Your task to perform on an android device: find snoozed emails in the gmail app Image 0: 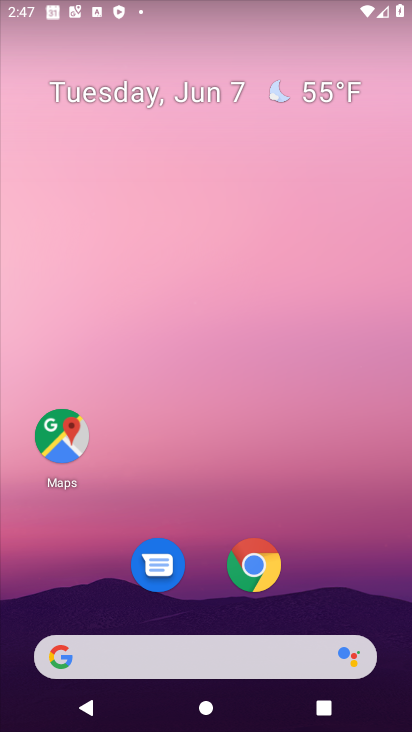
Step 0: drag from (296, 674) to (327, 77)
Your task to perform on an android device: find snoozed emails in the gmail app Image 1: 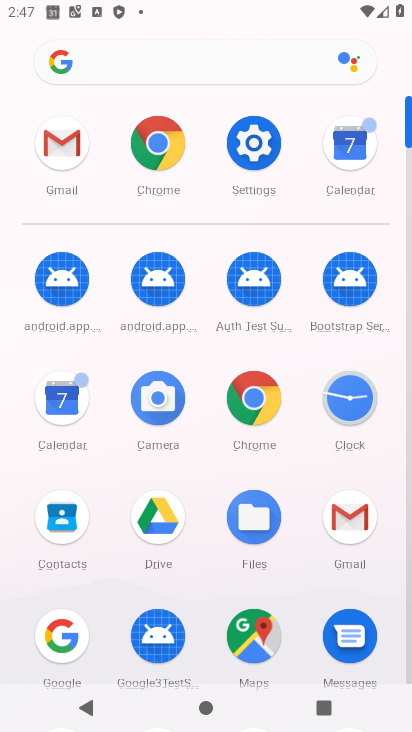
Step 1: click (361, 528)
Your task to perform on an android device: find snoozed emails in the gmail app Image 2: 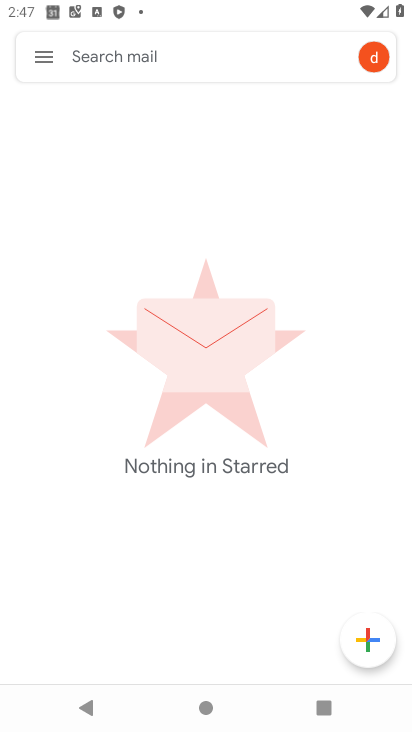
Step 2: click (44, 50)
Your task to perform on an android device: find snoozed emails in the gmail app Image 3: 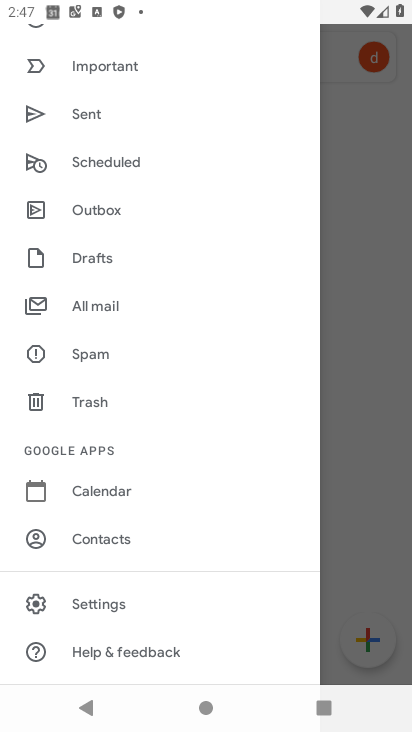
Step 3: click (149, 599)
Your task to perform on an android device: find snoozed emails in the gmail app Image 4: 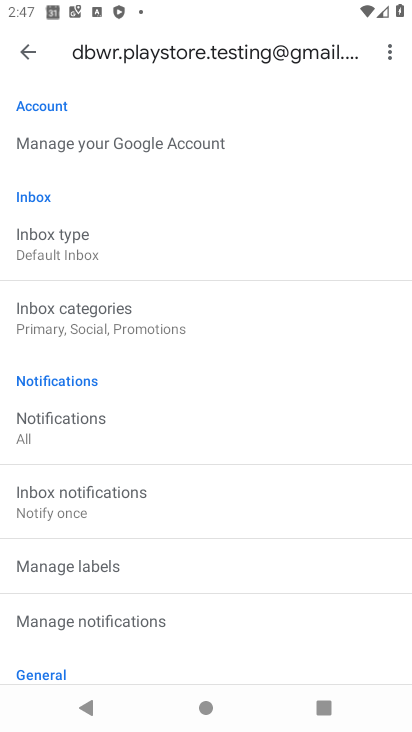
Step 4: press back button
Your task to perform on an android device: find snoozed emails in the gmail app Image 5: 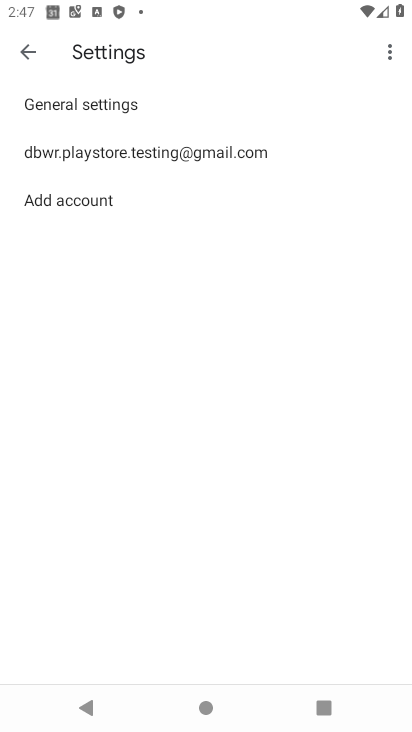
Step 5: press back button
Your task to perform on an android device: find snoozed emails in the gmail app Image 6: 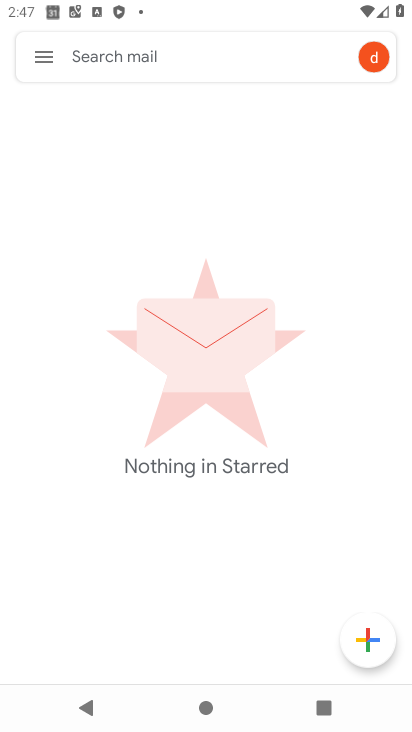
Step 6: click (29, 52)
Your task to perform on an android device: find snoozed emails in the gmail app Image 7: 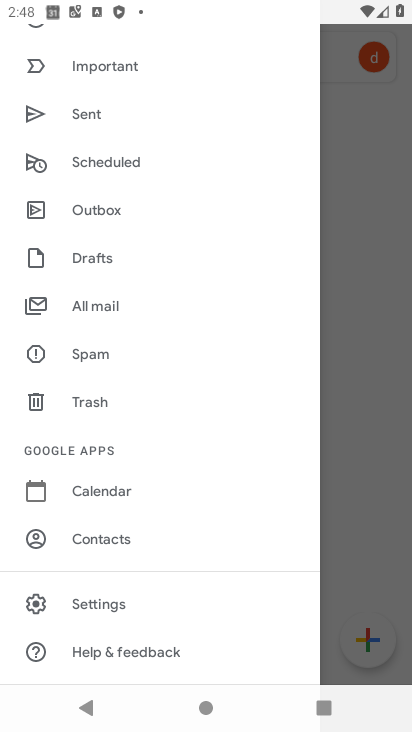
Step 7: drag from (120, 184) to (92, 485)
Your task to perform on an android device: find snoozed emails in the gmail app Image 8: 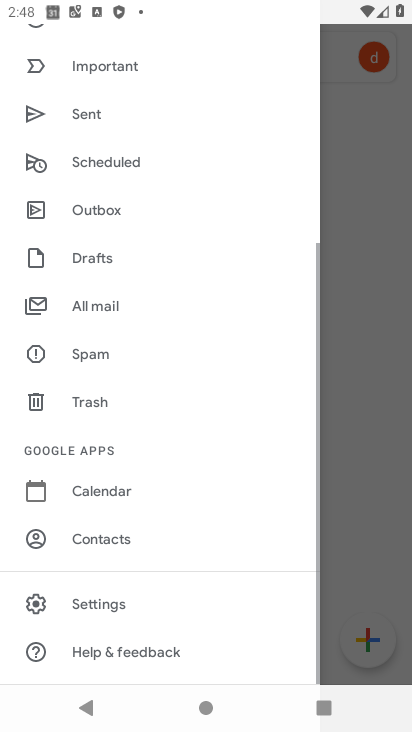
Step 8: drag from (145, 125) to (137, 555)
Your task to perform on an android device: find snoozed emails in the gmail app Image 9: 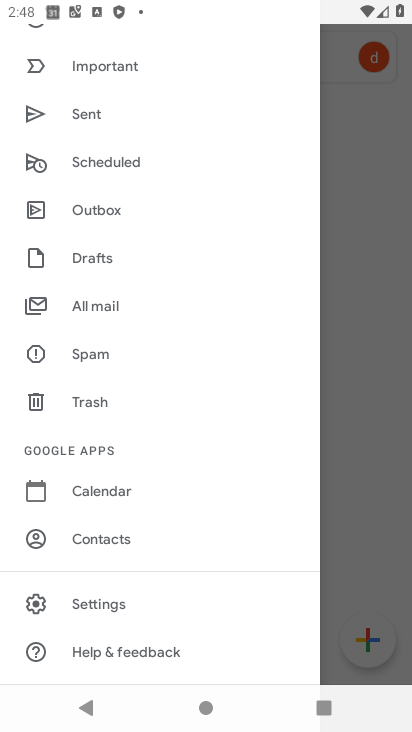
Step 9: drag from (127, 149) to (122, 604)
Your task to perform on an android device: find snoozed emails in the gmail app Image 10: 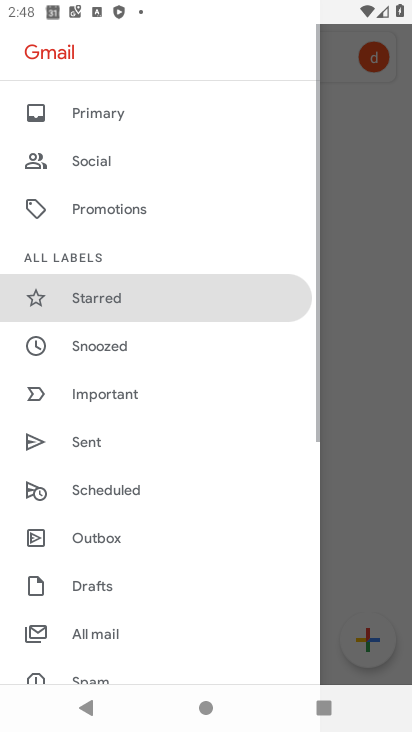
Step 10: click (97, 353)
Your task to perform on an android device: find snoozed emails in the gmail app Image 11: 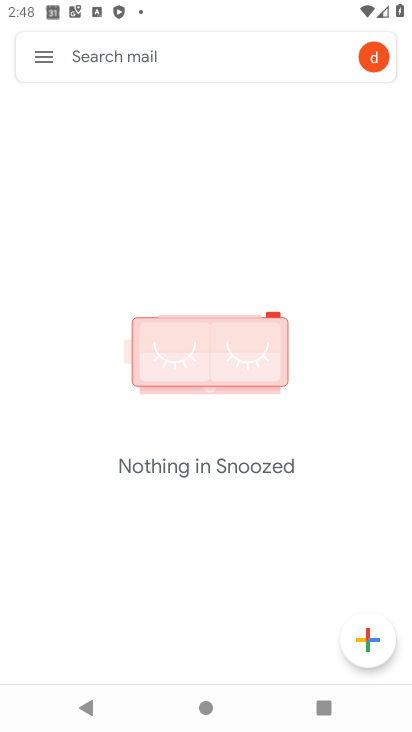
Step 11: task complete